Your task to perform on an android device: Open Google Chrome and click the shortcut for Amazon.com Image 0: 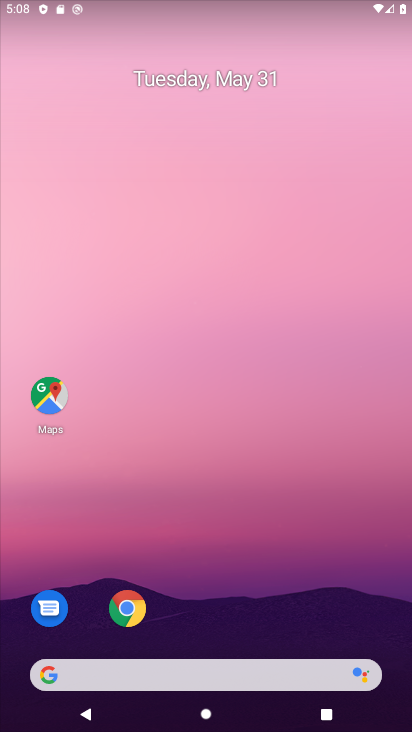
Step 0: drag from (260, 617) to (226, 157)
Your task to perform on an android device: Open Google Chrome and click the shortcut for Amazon.com Image 1: 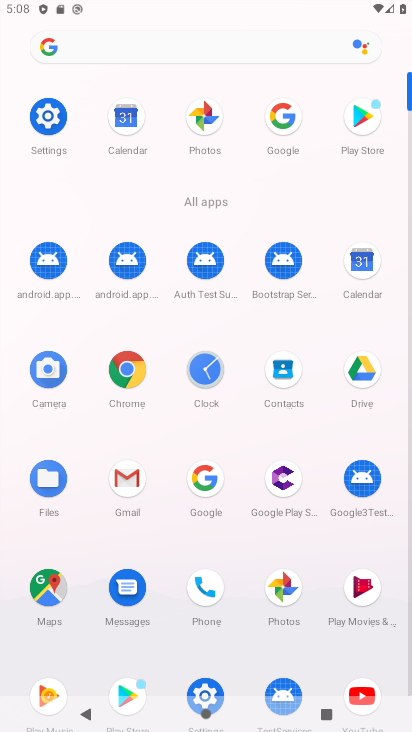
Step 1: click (126, 370)
Your task to perform on an android device: Open Google Chrome and click the shortcut for Amazon.com Image 2: 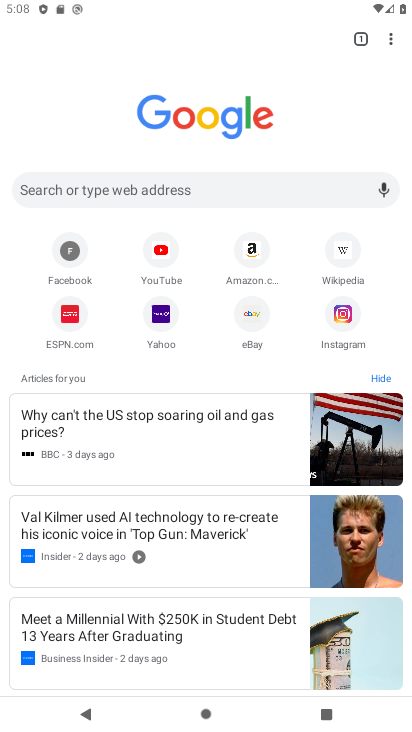
Step 2: click (249, 253)
Your task to perform on an android device: Open Google Chrome and click the shortcut for Amazon.com Image 3: 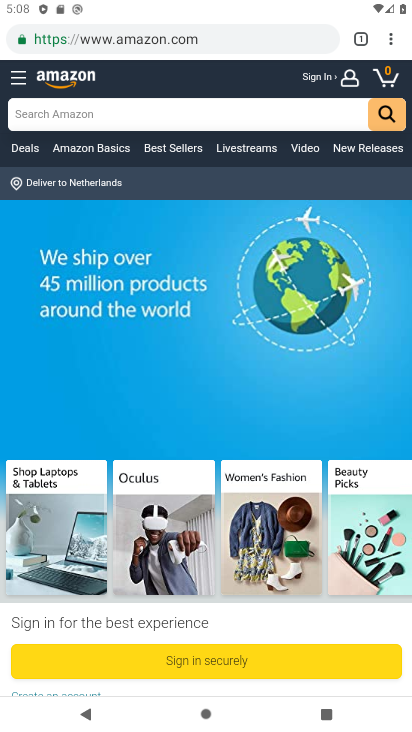
Step 3: click (390, 41)
Your task to perform on an android device: Open Google Chrome and click the shortcut for Amazon.com Image 4: 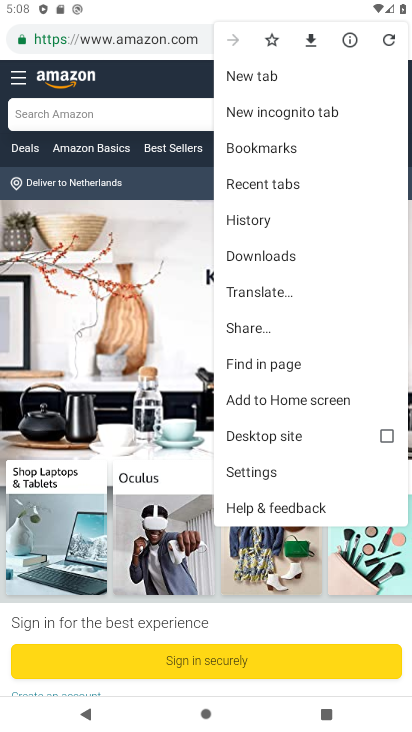
Step 4: click (336, 396)
Your task to perform on an android device: Open Google Chrome and click the shortcut for Amazon.com Image 5: 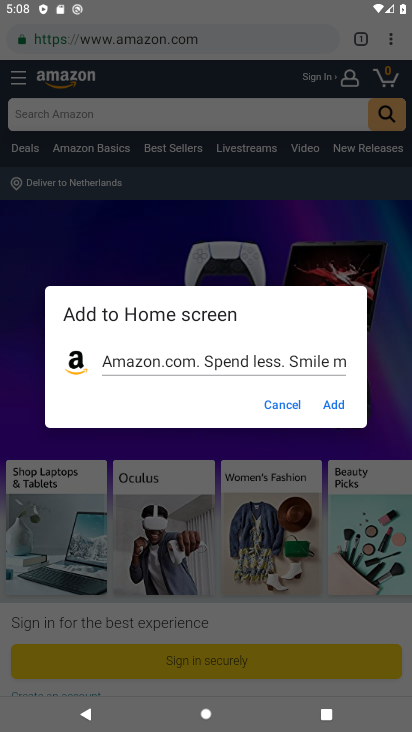
Step 5: click (341, 405)
Your task to perform on an android device: Open Google Chrome and click the shortcut for Amazon.com Image 6: 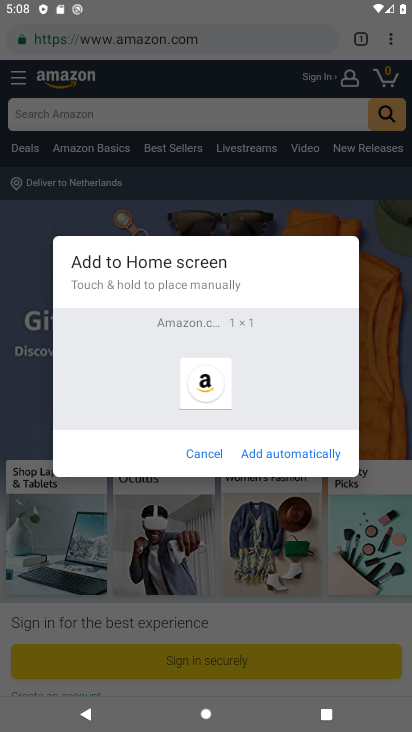
Step 6: click (313, 450)
Your task to perform on an android device: Open Google Chrome and click the shortcut for Amazon.com Image 7: 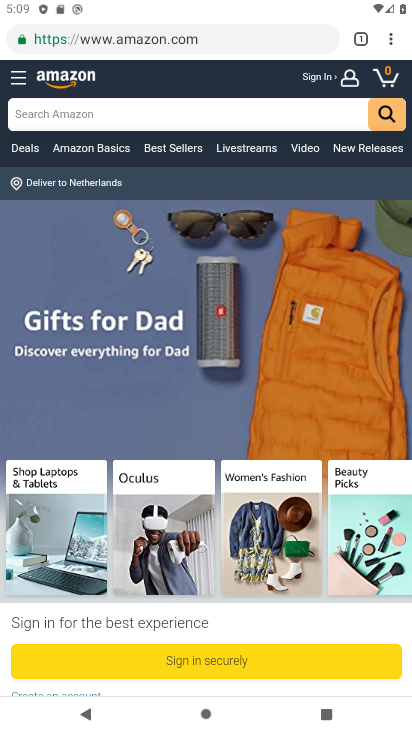
Step 7: task complete